Your task to perform on an android device: Search for 3d printed chess sets on Etsy. Image 0: 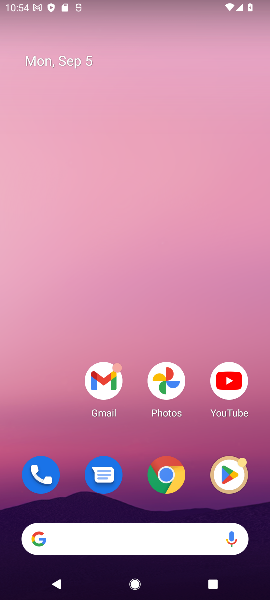
Step 0: click (94, 540)
Your task to perform on an android device: Search for 3d printed chess sets on Etsy. Image 1: 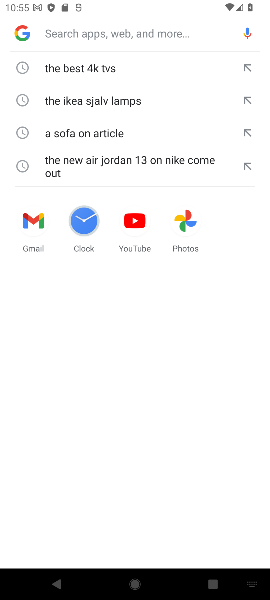
Step 1: type "3d printed chess sets on Etsy"
Your task to perform on an android device: Search for 3d printed chess sets on Etsy. Image 2: 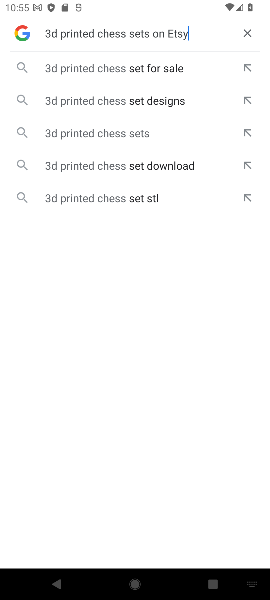
Step 2: click (148, 68)
Your task to perform on an android device: Search for 3d printed chess sets on Etsy. Image 3: 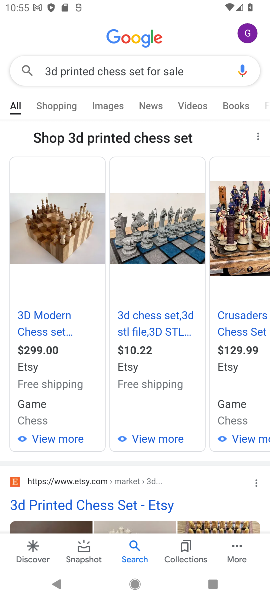
Step 3: task complete